Your task to perform on an android device: open sync settings in chrome Image 0: 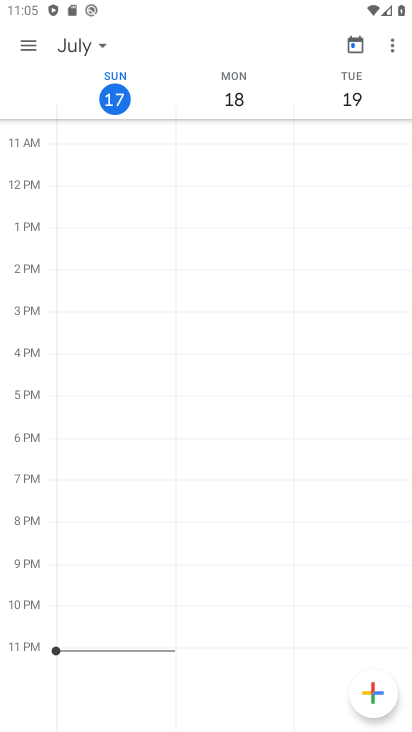
Step 0: press home button
Your task to perform on an android device: open sync settings in chrome Image 1: 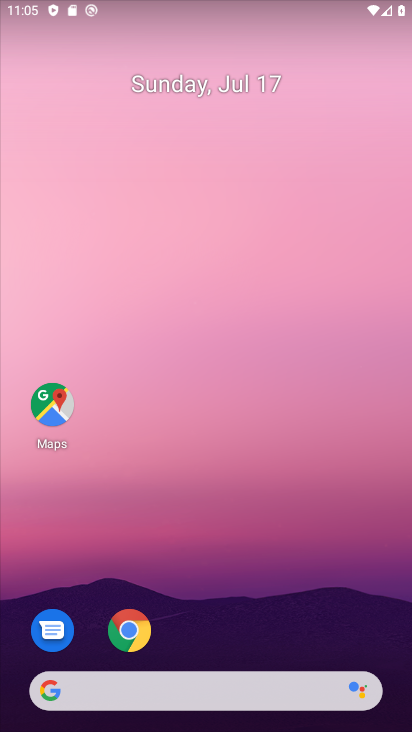
Step 1: click (135, 632)
Your task to perform on an android device: open sync settings in chrome Image 2: 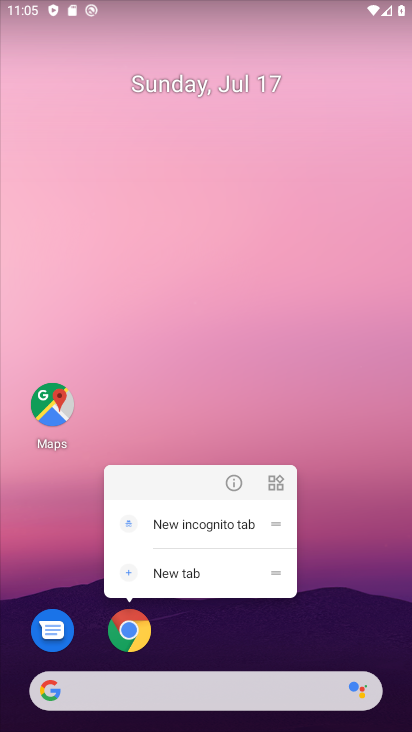
Step 2: click (132, 632)
Your task to perform on an android device: open sync settings in chrome Image 3: 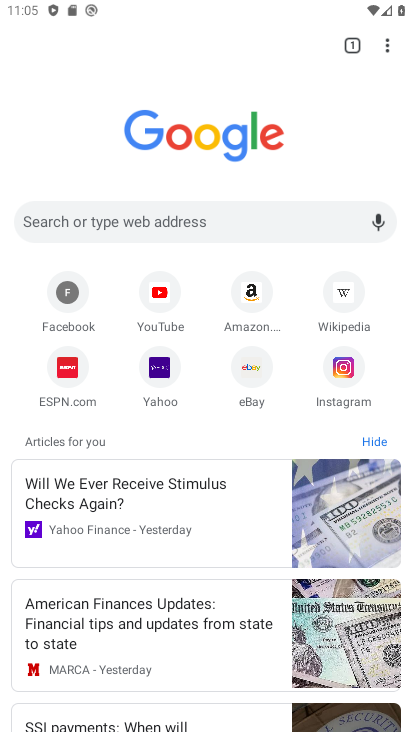
Step 3: click (385, 43)
Your task to perform on an android device: open sync settings in chrome Image 4: 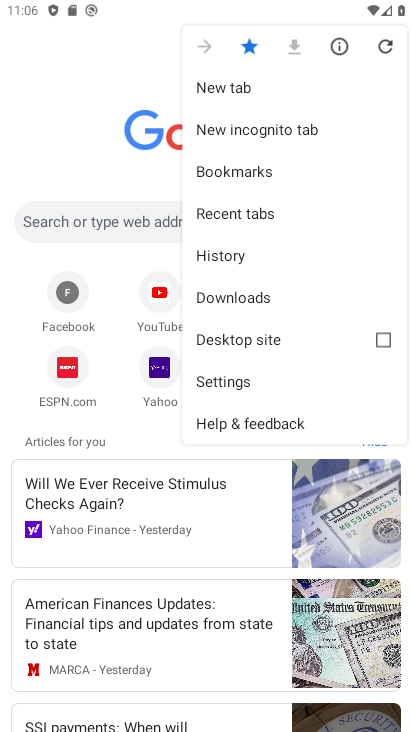
Step 4: click (227, 379)
Your task to perform on an android device: open sync settings in chrome Image 5: 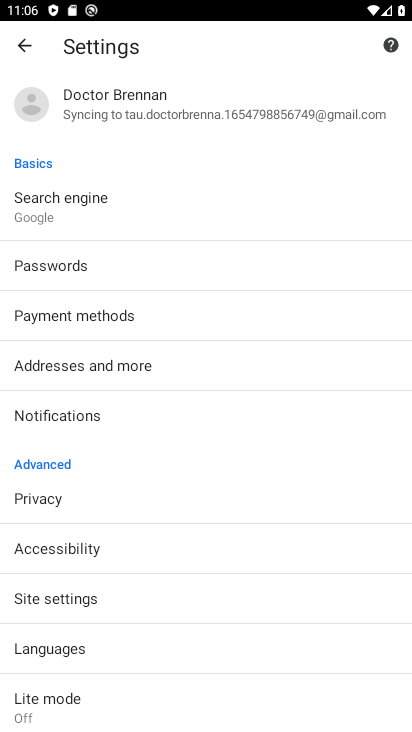
Step 5: click (151, 100)
Your task to perform on an android device: open sync settings in chrome Image 6: 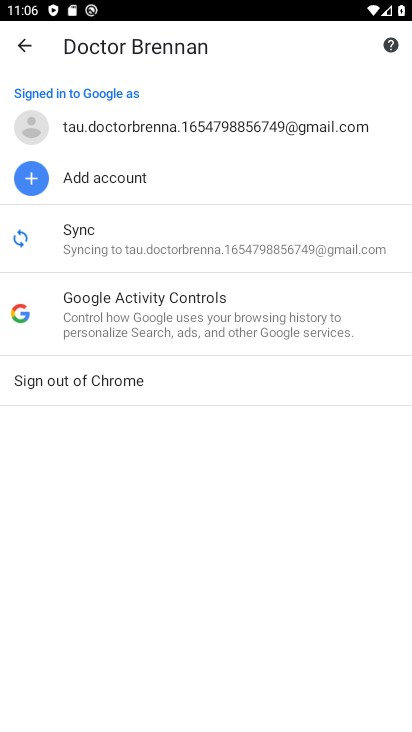
Step 6: click (132, 240)
Your task to perform on an android device: open sync settings in chrome Image 7: 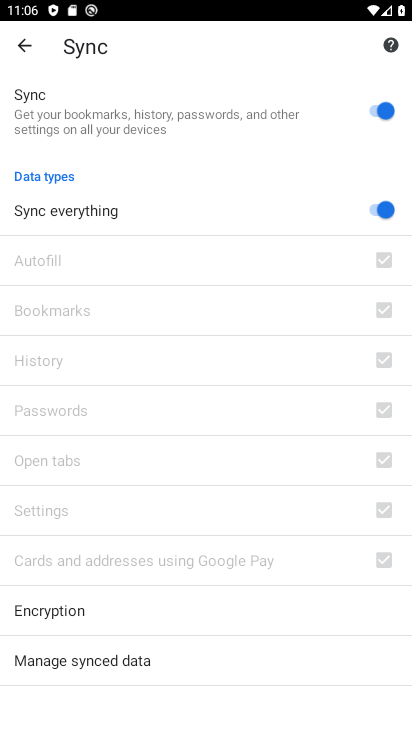
Step 7: task complete